Your task to perform on an android device: Search for "energizer triple a" on amazon.com, select the first entry, and add it to the cart. Image 0: 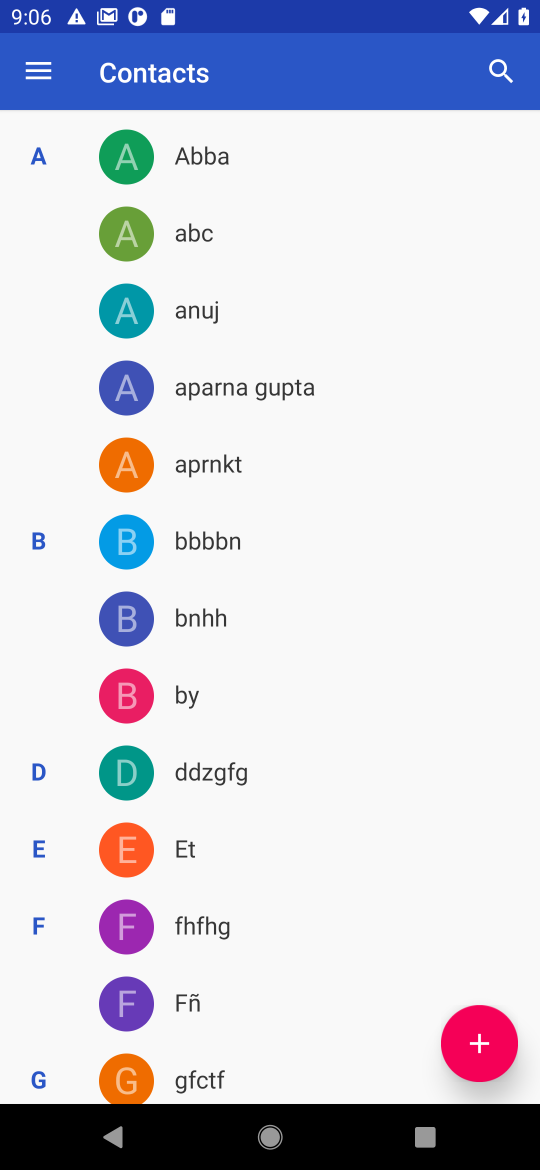
Step 0: press home button
Your task to perform on an android device: Search for "energizer triple a" on amazon.com, select the first entry, and add it to the cart. Image 1: 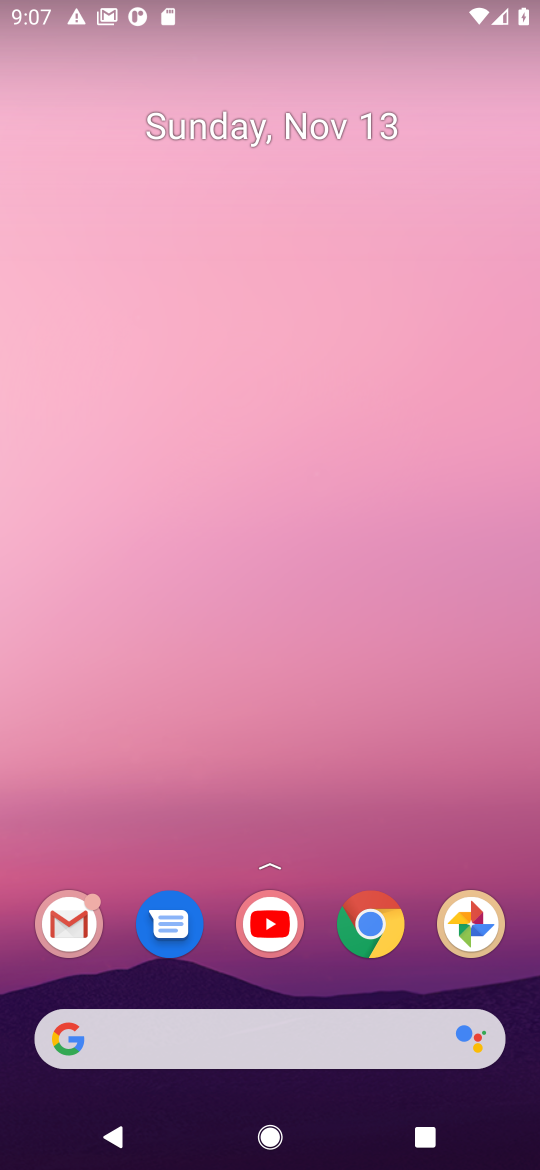
Step 1: click (361, 934)
Your task to perform on an android device: Search for "energizer triple a" on amazon.com, select the first entry, and add it to the cart. Image 2: 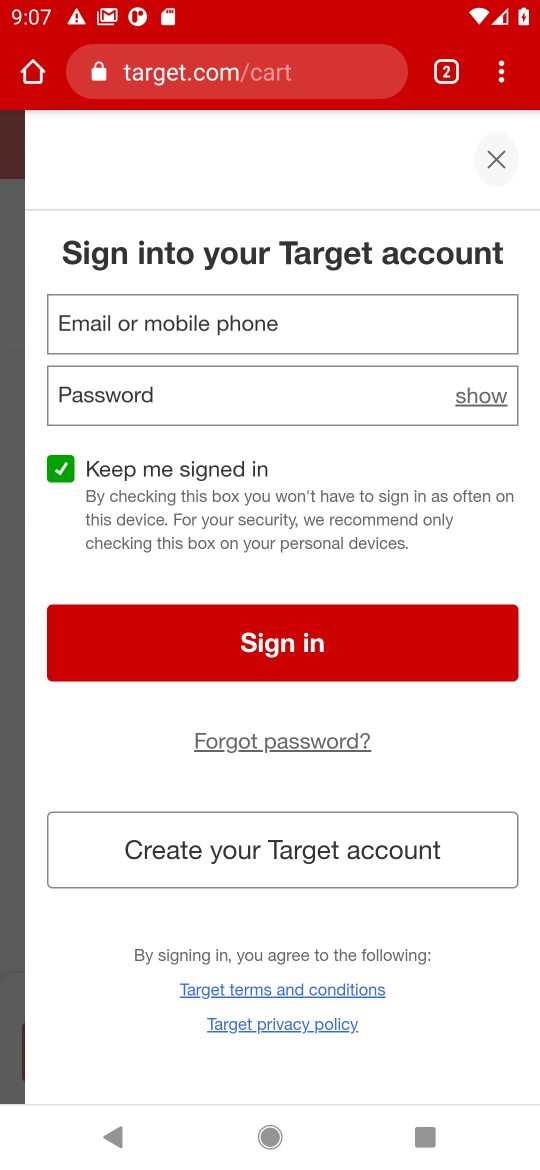
Step 2: click (242, 77)
Your task to perform on an android device: Search for "energizer triple a" on amazon.com, select the first entry, and add it to the cart. Image 3: 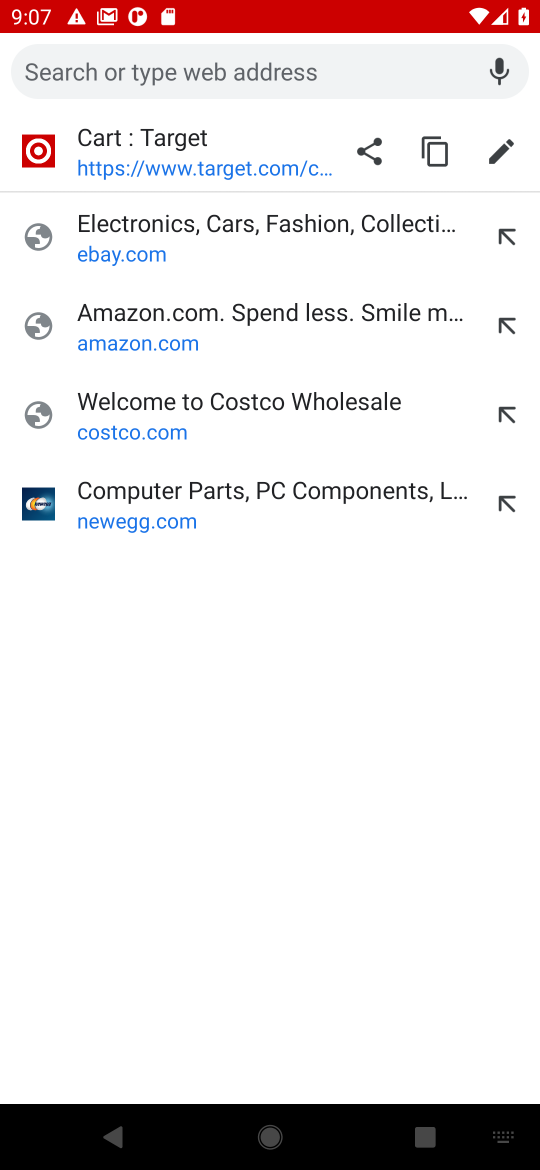
Step 3: click (88, 340)
Your task to perform on an android device: Search for "energizer triple a" on amazon.com, select the first entry, and add it to the cart. Image 4: 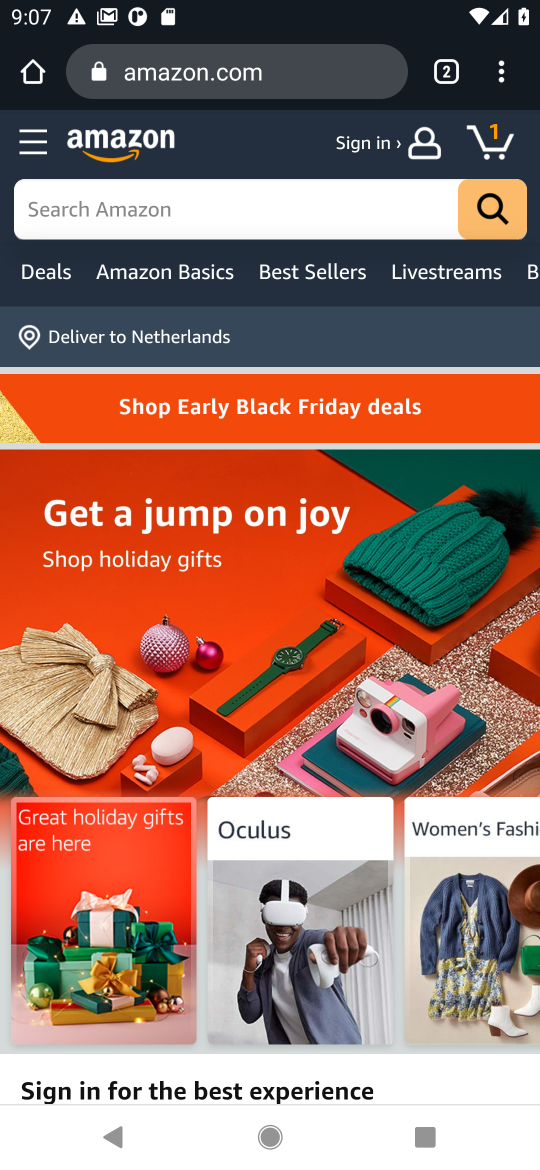
Step 4: click (196, 203)
Your task to perform on an android device: Search for "energizer triple a" on amazon.com, select the first entry, and add it to the cart. Image 5: 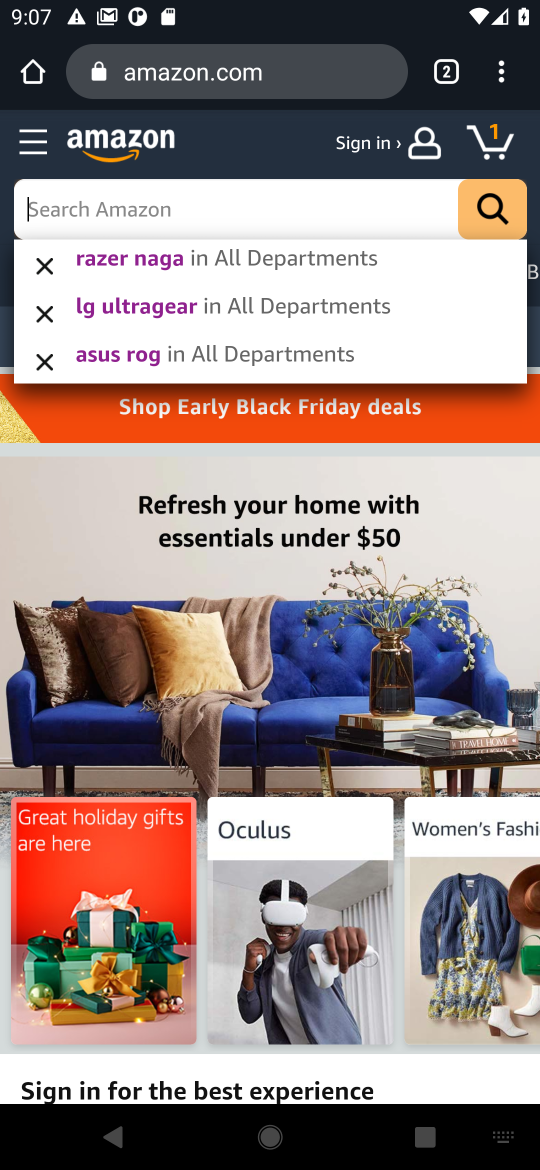
Step 5: type "energizer triple a"
Your task to perform on an android device: Search for "energizer triple a" on amazon.com, select the first entry, and add it to the cart. Image 6: 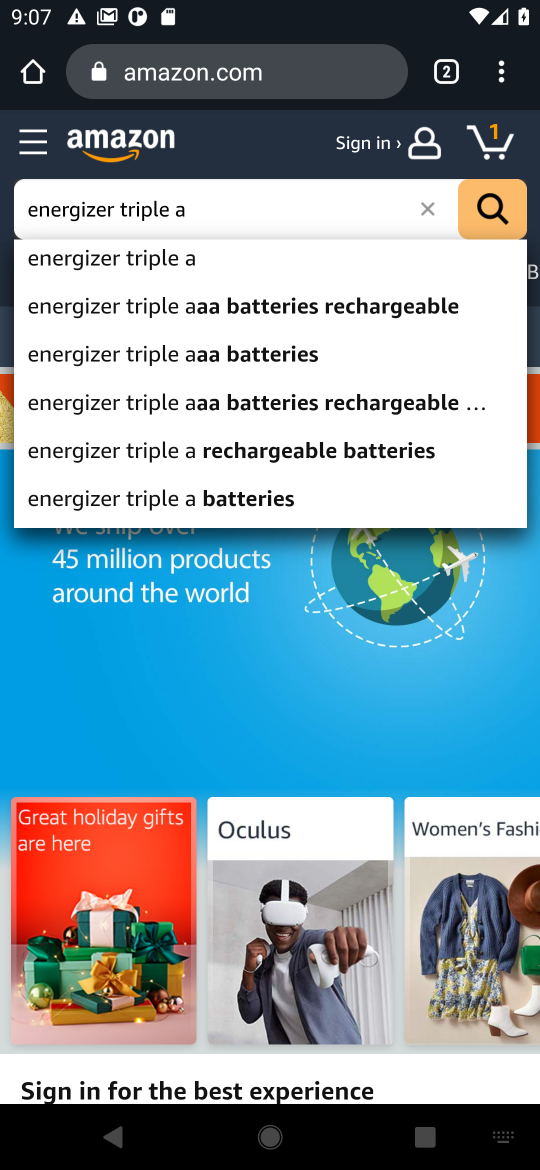
Step 6: click (120, 272)
Your task to perform on an android device: Search for "energizer triple a" on amazon.com, select the first entry, and add it to the cart. Image 7: 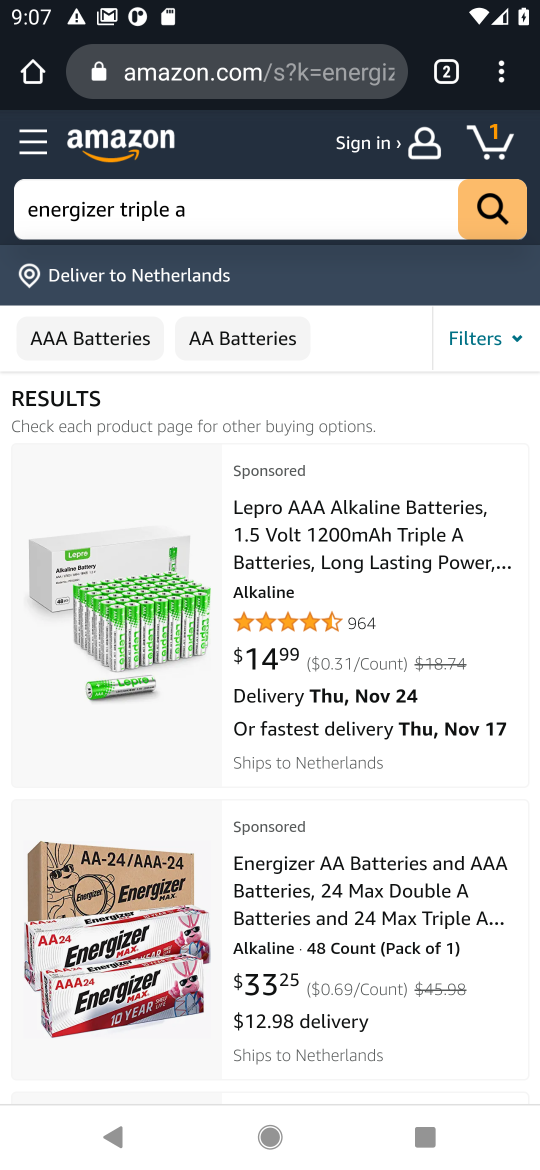
Step 7: task complete